Your task to perform on an android device: check storage Image 0: 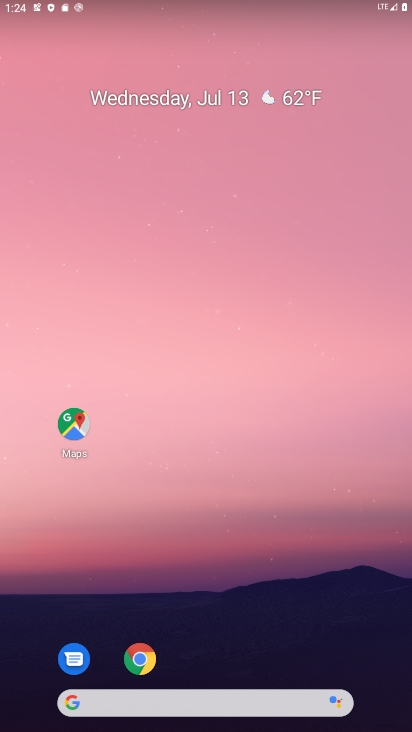
Step 0: drag from (225, 723) to (201, 151)
Your task to perform on an android device: check storage Image 1: 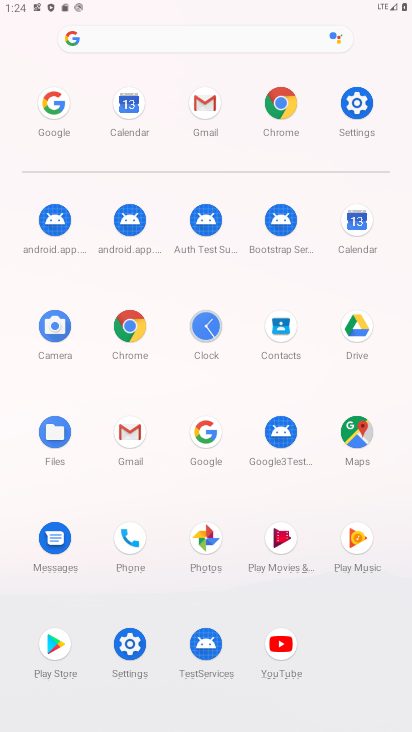
Step 1: click (357, 104)
Your task to perform on an android device: check storage Image 2: 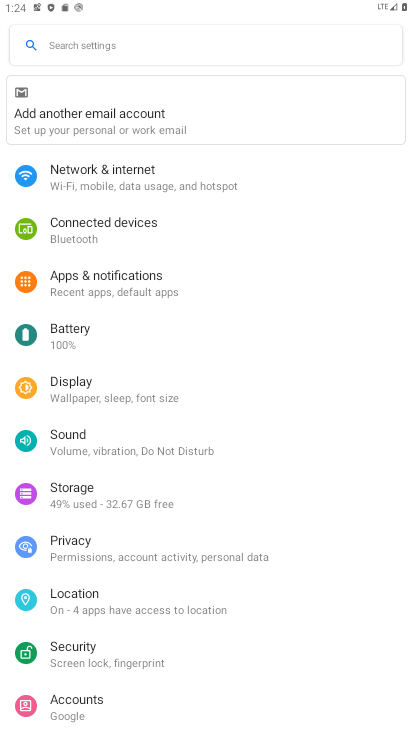
Step 2: click (76, 486)
Your task to perform on an android device: check storage Image 3: 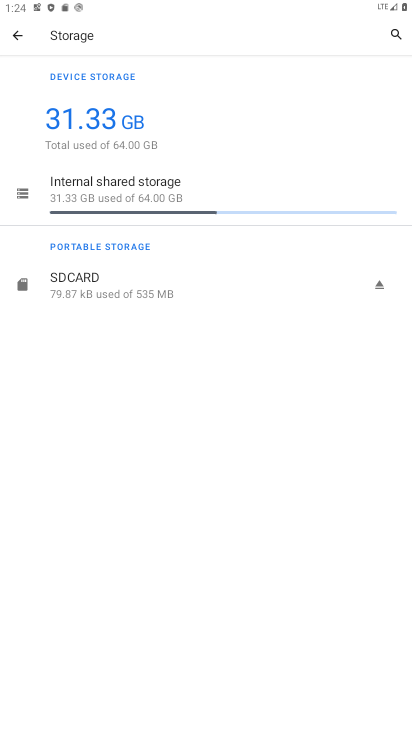
Step 3: task complete